Your task to perform on an android device: turn off improve location accuracy Image 0: 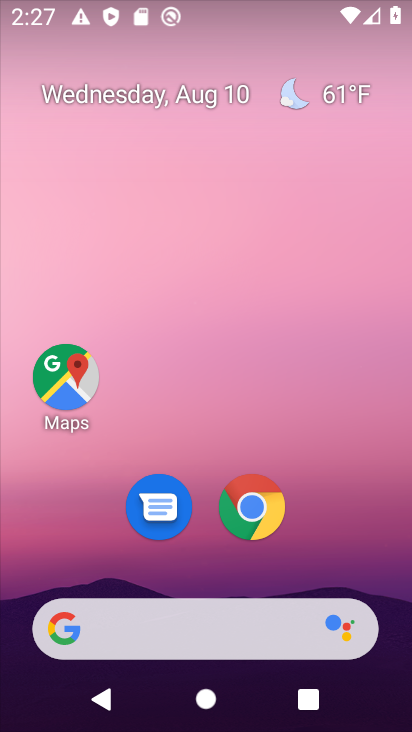
Step 0: drag from (320, 492) to (194, 20)
Your task to perform on an android device: turn off improve location accuracy Image 1: 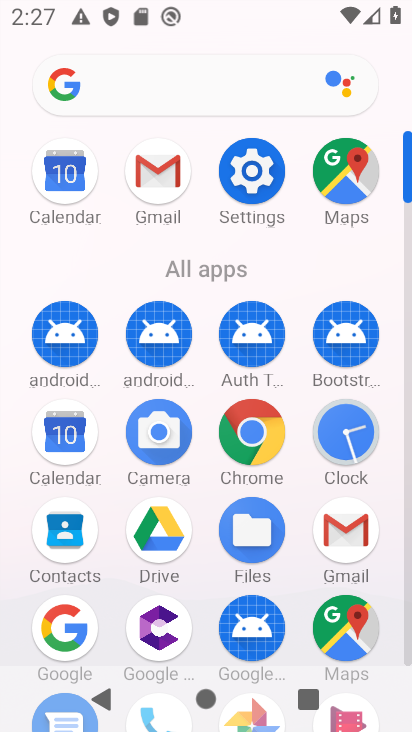
Step 1: click (249, 149)
Your task to perform on an android device: turn off improve location accuracy Image 2: 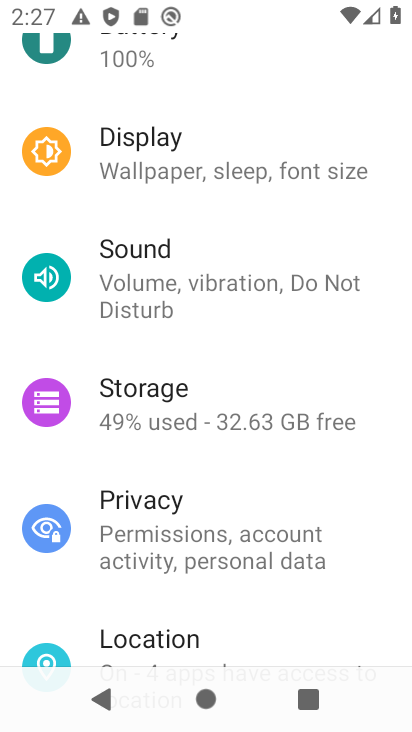
Step 2: click (158, 632)
Your task to perform on an android device: turn off improve location accuracy Image 3: 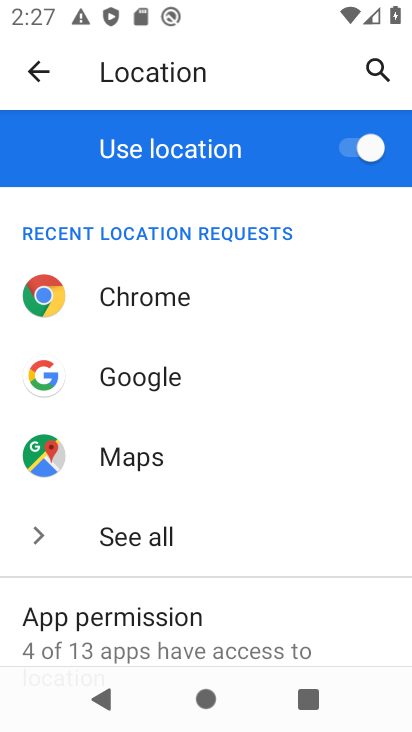
Step 3: drag from (228, 625) to (290, 101)
Your task to perform on an android device: turn off improve location accuracy Image 4: 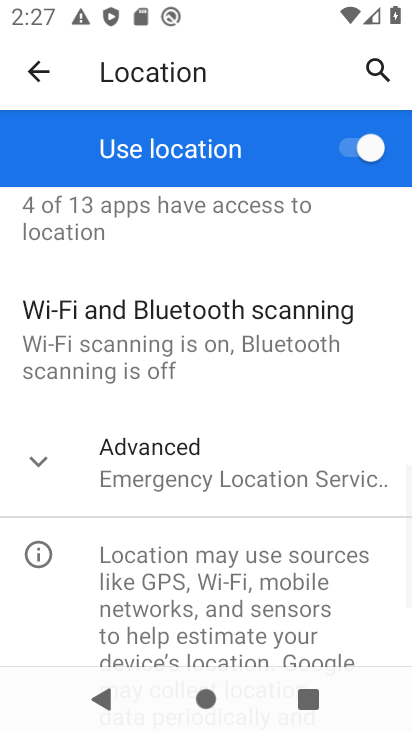
Step 4: click (229, 531)
Your task to perform on an android device: turn off improve location accuracy Image 5: 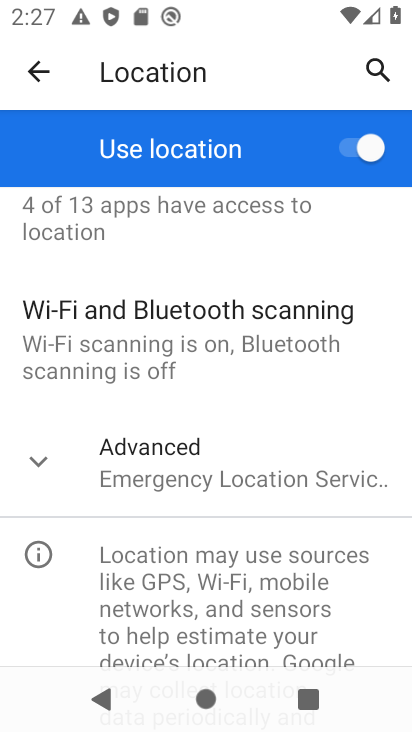
Step 5: click (225, 496)
Your task to perform on an android device: turn off improve location accuracy Image 6: 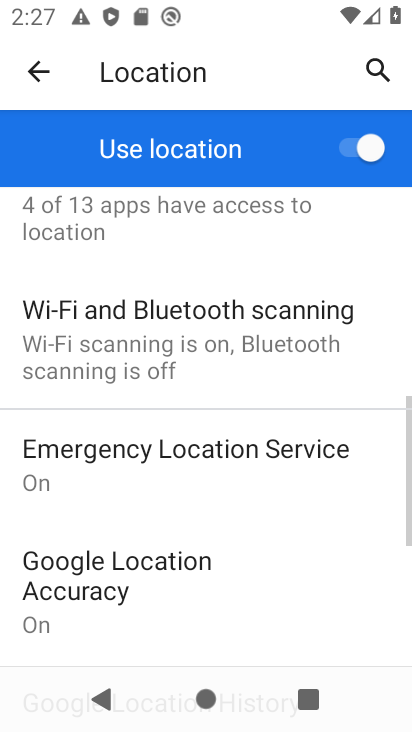
Step 6: drag from (255, 617) to (277, 296)
Your task to perform on an android device: turn off improve location accuracy Image 7: 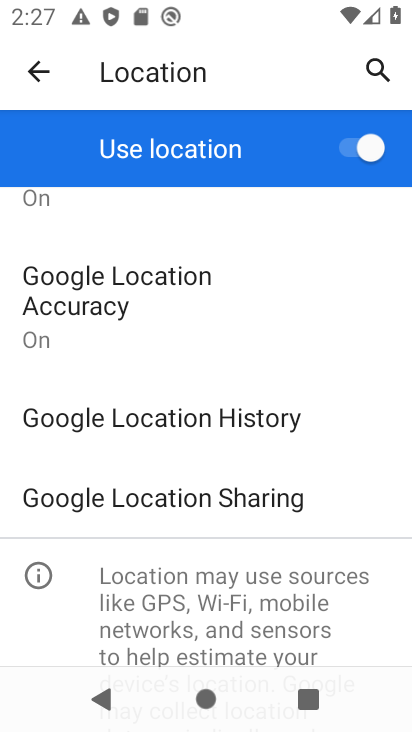
Step 7: click (159, 286)
Your task to perform on an android device: turn off improve location accuracy Image 8: 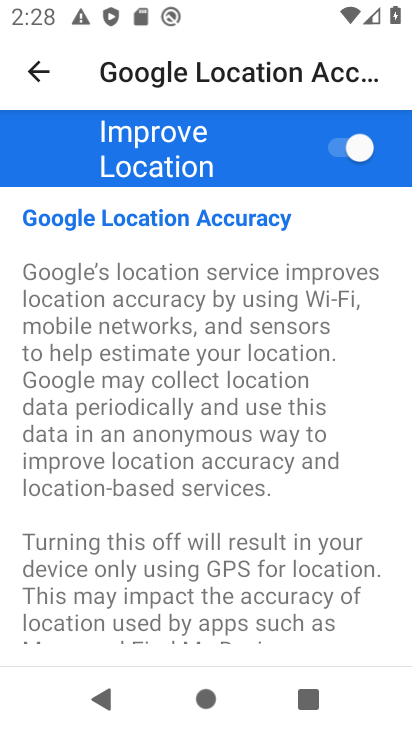
Step 8: click (351, 142)
Your task to perform on an android device: turn off improve location accuracy Image 9: 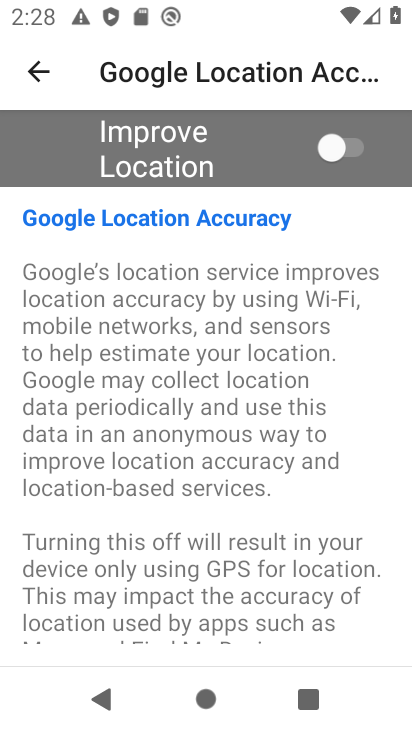
Step 9: task complete